Your task to perform on an android device: Open maps Image 0: 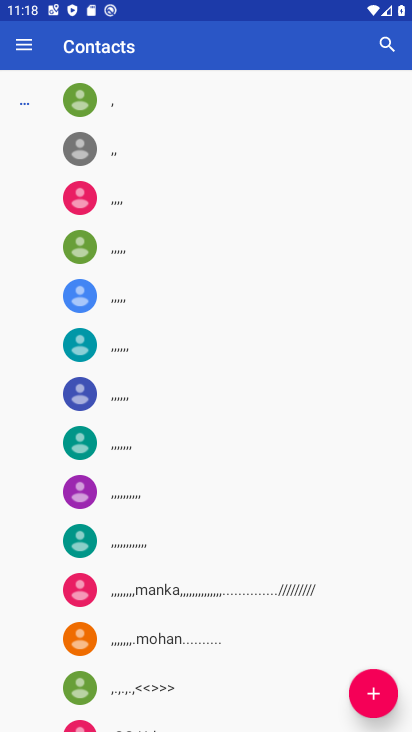
Step 0: press back button
Your task to perform on an android device: Open maps Image 1: 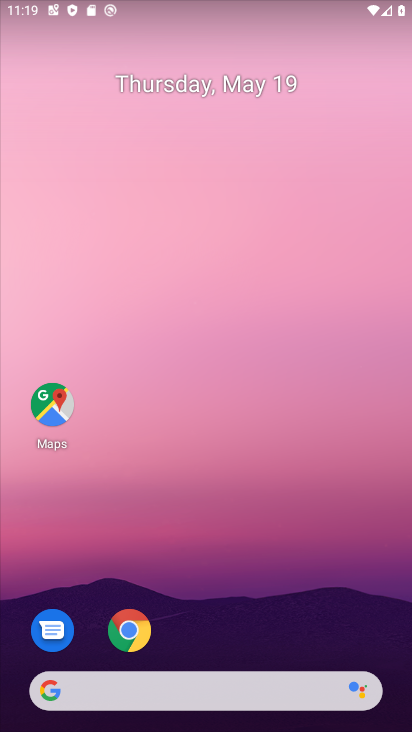
Step 1: click (51, 404)
Your task to perform on an android device: Open maps Image 2: 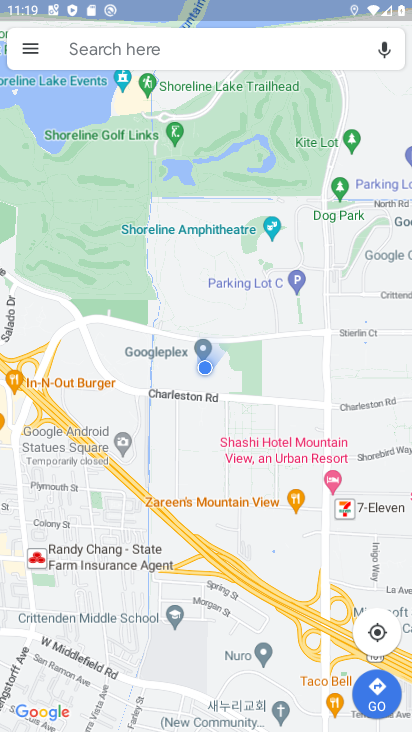
Step 2: task complete